Your task to perform on an android device: Go to Android settings Image 0: 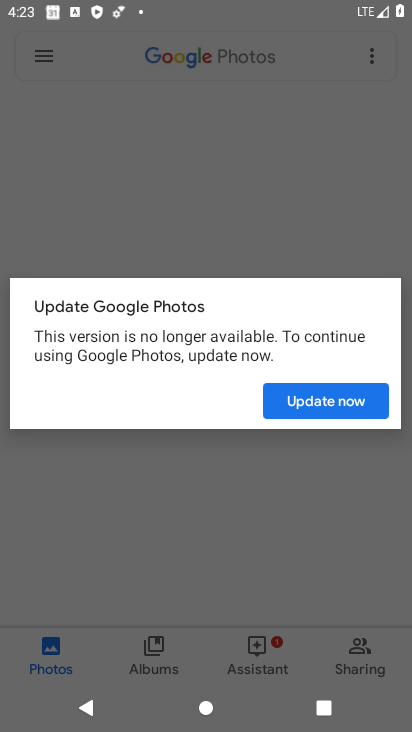
Step 0: press home button
Your task to perform on an android device: Go to Android settings Image 1: 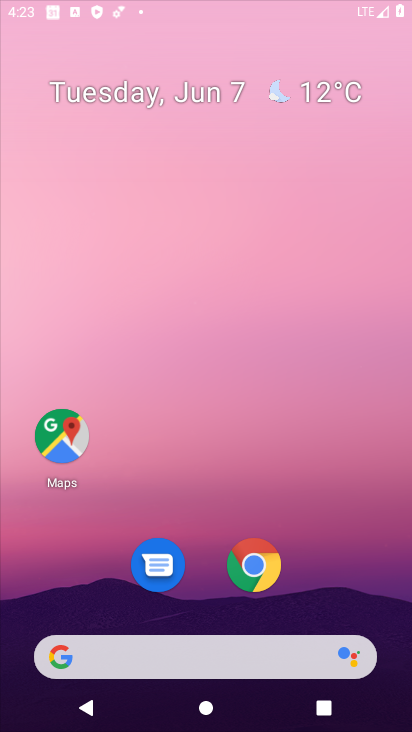
Step 1: drag from (200, 649) to (290, 30)
Your task to perform on an android device: Go to Android settings Image 2: 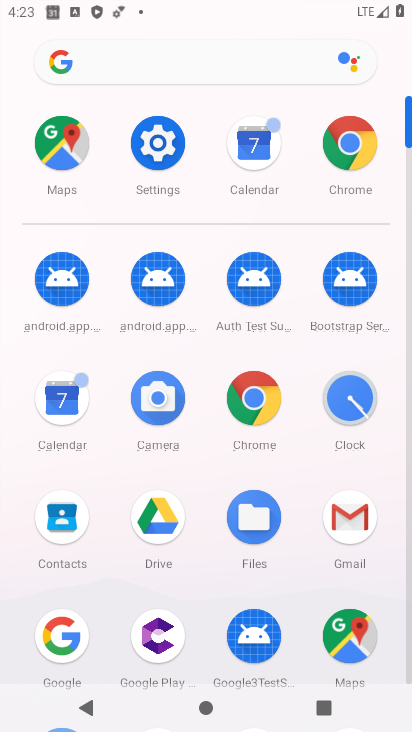
Step 2: click (147, 144)
Your task to perform on an android device: Go to Android settings Image 3: 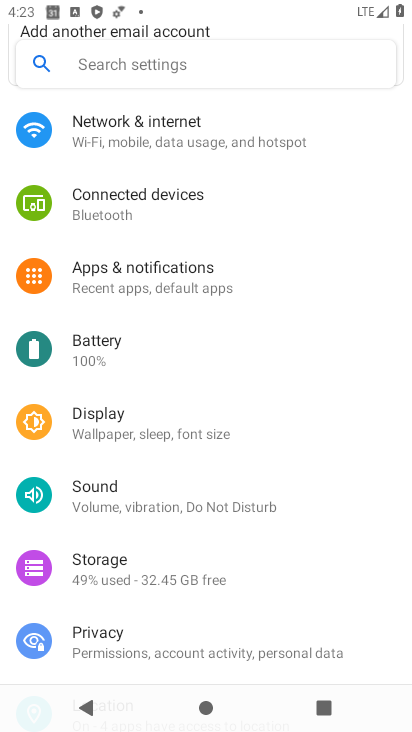
Step 3: drag from (199, 603) to (197, 20)
Your task to perform on an android device: Go to Android settings Image 4: 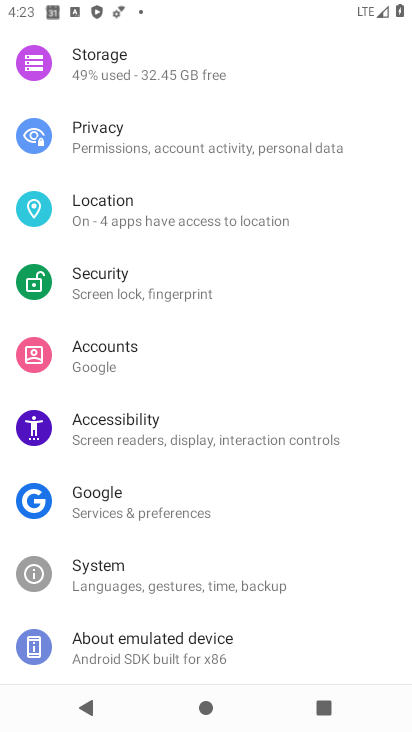
Step 4: click (140, 647)
Your task to perform on an android device: Go to Android settings Image 5: 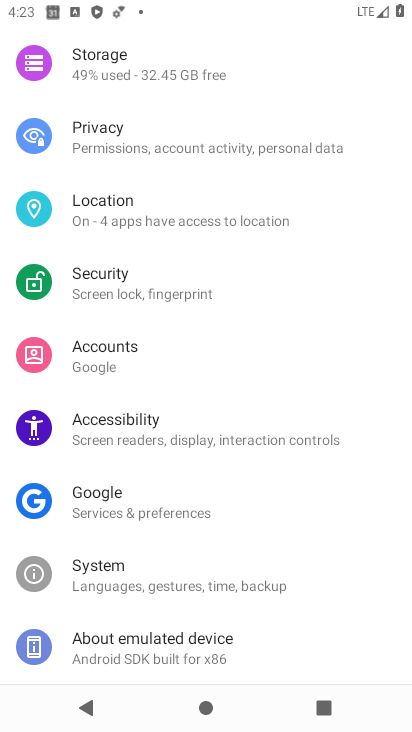
Step 5: click (229, 653)
Your task to perform on an android device: Go to Android settings Image 6: 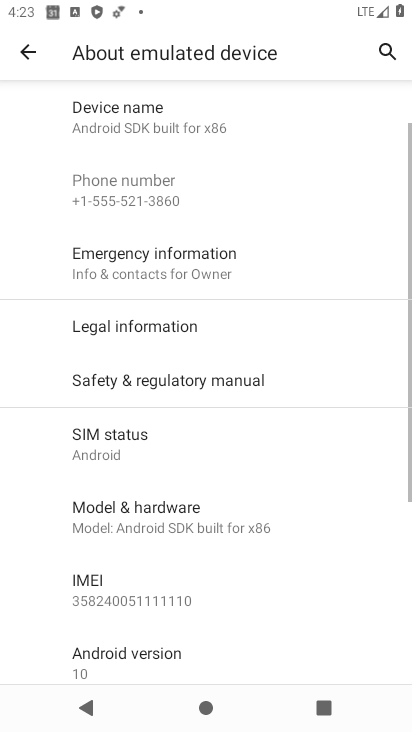
Step 6: click (152, 660)
Your task to perform on an android device: Go to Android settings Image 7: 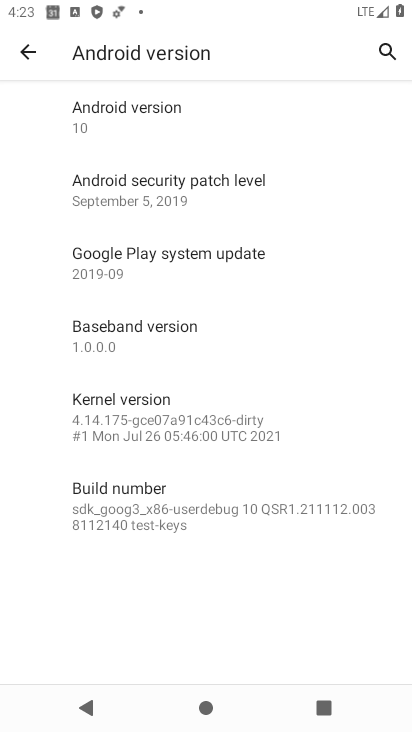
Step 7: task complete